Your task to perform on an android device: all mails in gmail Image 0: 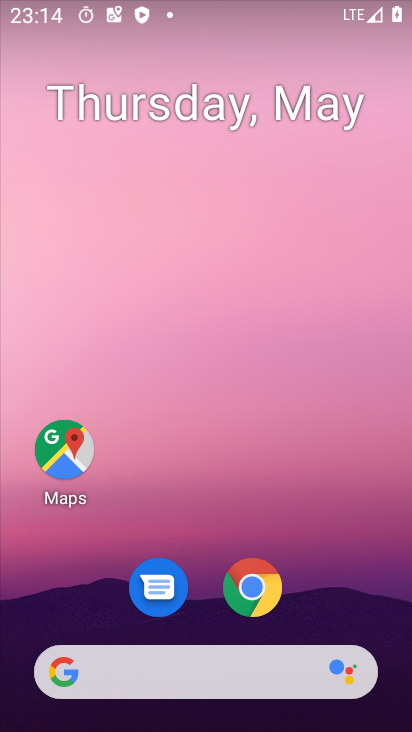
Step 0: drag from (349, 634) to (373, 7)
Your task to perform on an android device: all mails in gmail Image 1: 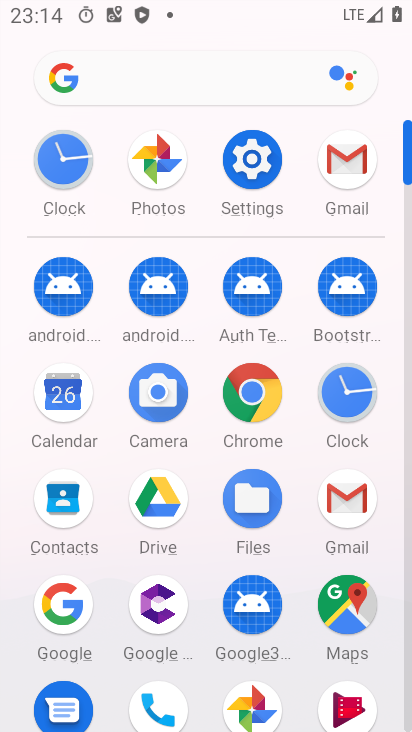
Step 1: click (348, 158)
Your task to perform on an android device: all mails in gmail Image 2: 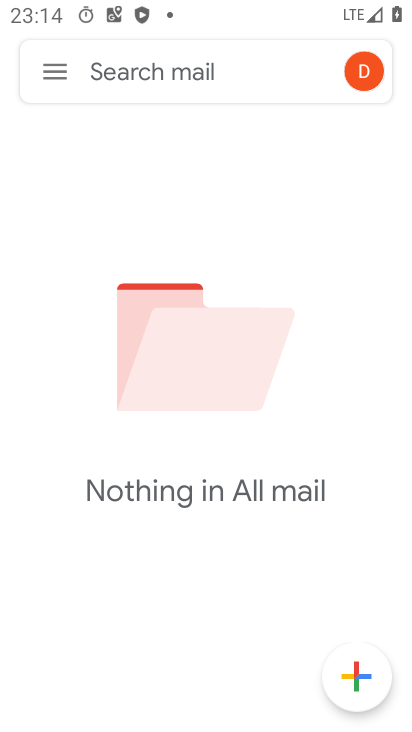
Step 2: task complete